Your task to perform on an android device: Open the calendar app, open the side menu, and click the "Day" option Image 0: 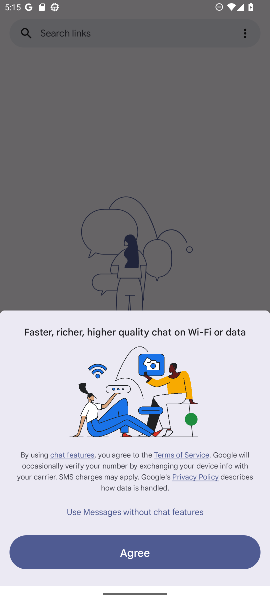
Step 0: press home button
Your task to perform on an android device: Open the calendar app, open the side menu, and click the "Day" option Image 1: 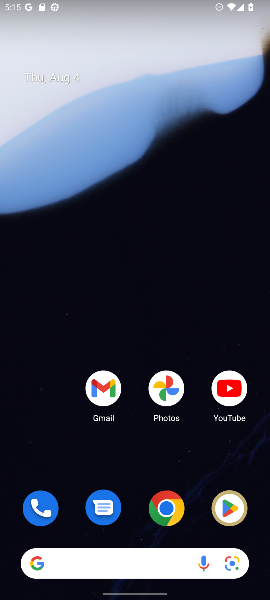
Step 1: drag from (174, 426) to (216, 121)
Your task to perform on an android device: Open the calendar app, open the side menu, and click the "Day" option Image 2: 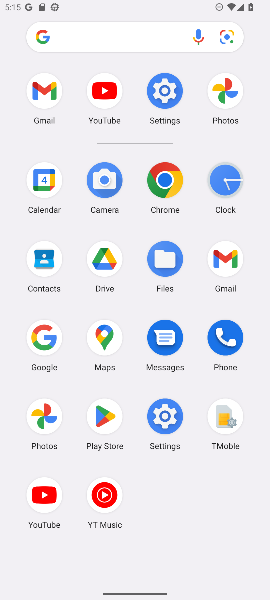
Step 2: click (50, 194)
Your task to perform on an android device: Open the calendar app, open the side menu, and click the "Day" option Image 3: 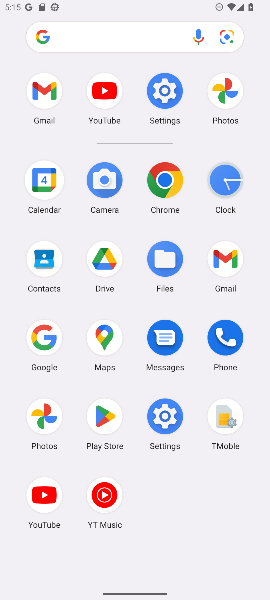
Step 3: click (51, 193)
Your task to perform on an android device: Open the calendar app, open the side menu, and click the "Day" option Image 4: 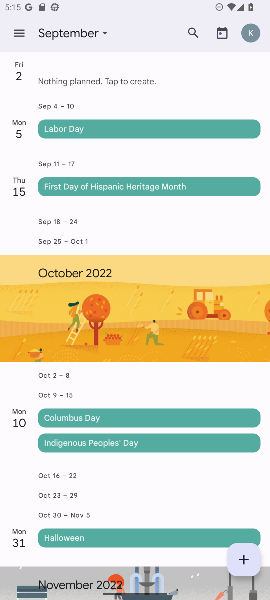
Step 4: drag from (163, 473) to (165, 271)
Your task to perform on an android device: Open the calendar app, open the side menu, and click the "Day" option Image 5: 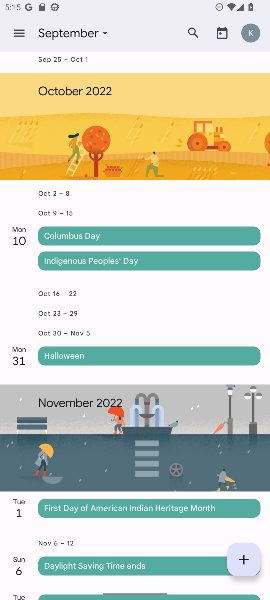
Step 5: drag from (169, 275) to (229, 527)
Your task to perform on an android device: Open the calendar app, open the side menu, and click the "Day" option Image 6: 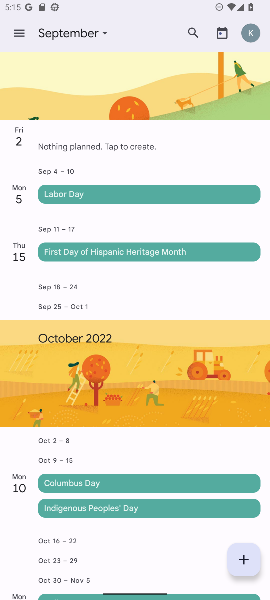
Step 6: drag from (105, 194) to (168, 543)
Your task to perform on an android device: Open the calendar app, open the side menu, and click the "Day" option Image 7: 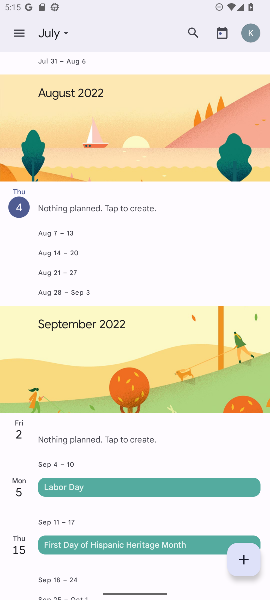
Step 7: click (12, 24)
Your task to perform on an android device: Open the calendar app, open the side menu, and click the "Day" option Image 8: 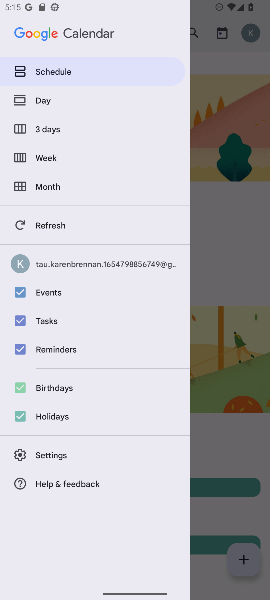
Step 8: click (51, 105)
Your task to perform on an android device: Open the calendar app, open the side menu, and click the "Day" option Image 9: 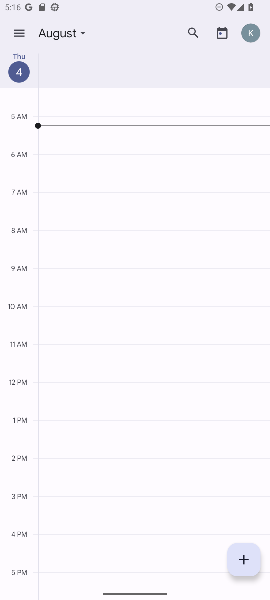
Step 9: task complete